Your task to perform on an android device: open the mobile data screen to see how much data has been used Image 0: 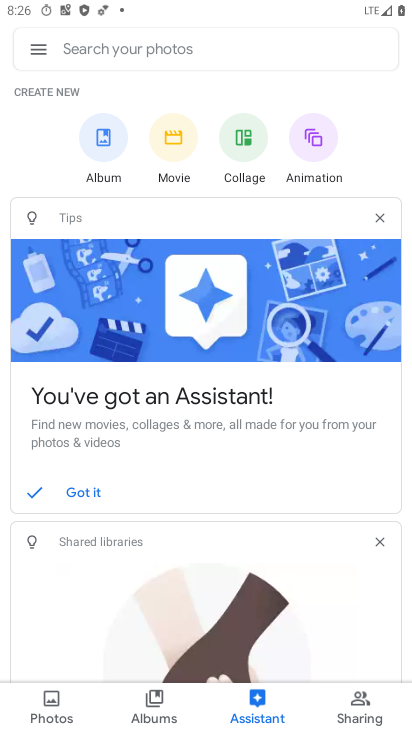
Step 0: press home button
Your task to perform on an android device: open the mobile data screen to see how much data has been used Image 1: 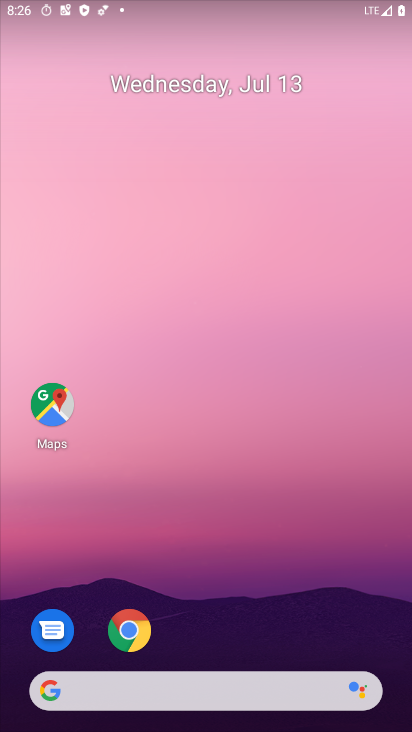
Step 1: drag from (329, 593) to (353, 71)
Your task to perform on an android device: open the mobile data screen to see how much data has been used Image 2: 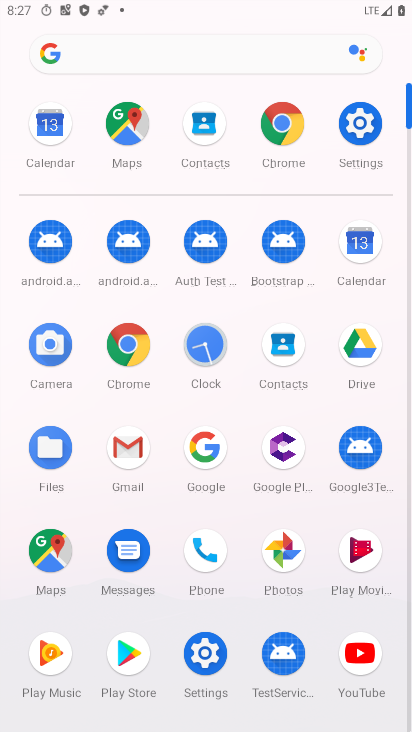
Step 2: click (362, 123)
Your task to perform on an android device: open the mobile data screen to see how much data has been used Image 3: 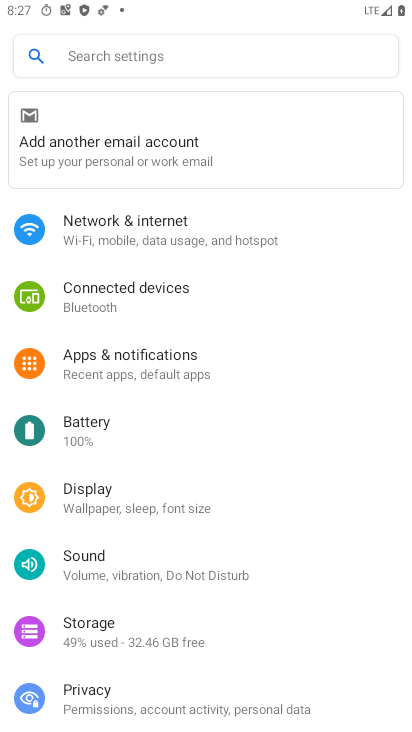
Step 3: drag from (338, 433) to (348, 288)
Your task to perform on an android device: open the mobile data screen to see how much data has been used Image 4: 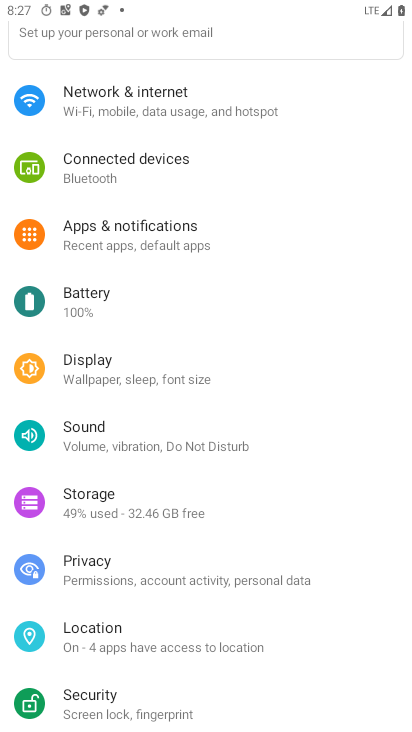
Step 4: drag from (346, 498) to (347, 305)
Your task to perform on an android device: open the mobile data screen to see how much data has been used Image 5: 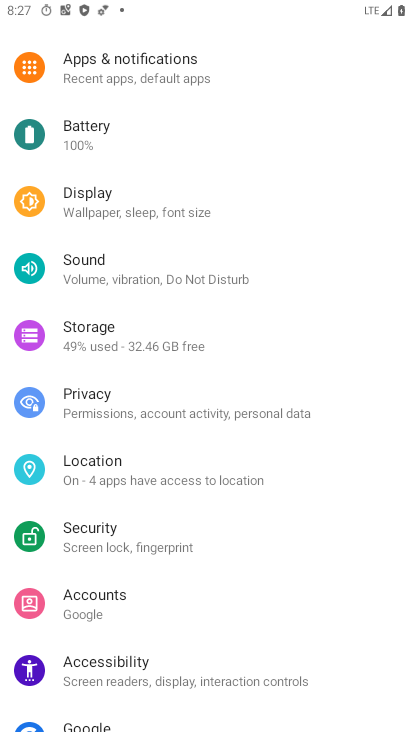
Step 5: drag from (313, 551) to (313, 395)
Your task to perform on an android device: open the mobile data screen to see how much data has been used Image 6: 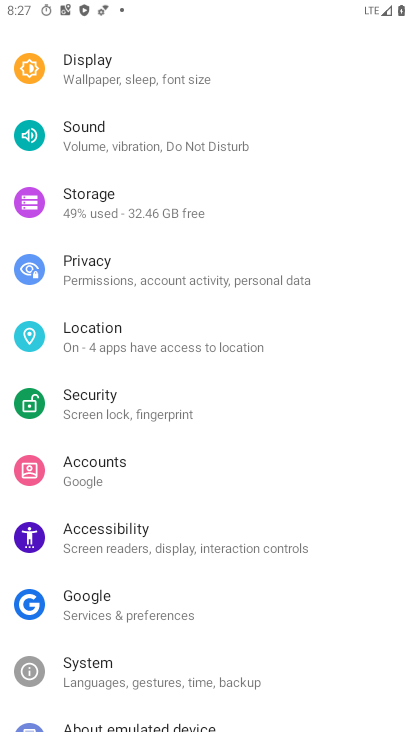
Step 6: drag from (343, 640) to (344, 379)
Your task to perform on an android device: open the mobile data screen to see how much data has been used Image 7: 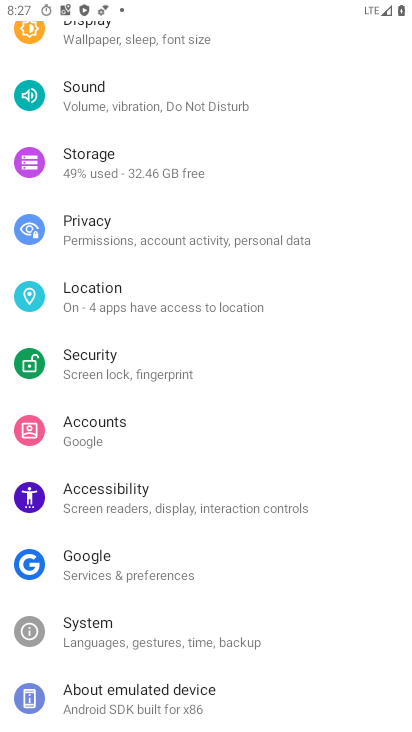
Step 7: drag from (343, 305) to (344, 394)
Your task to perform on an android device: open the mobile data screen to see how much data has been used Image 8: 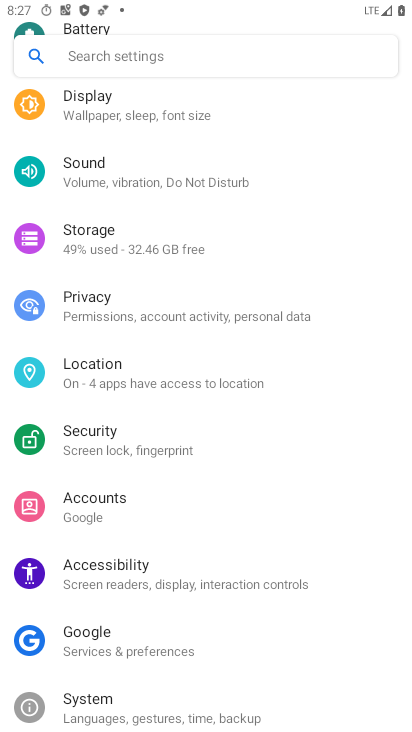
Step 8: drag from (350, 316) to (350, 423)
Your task to perform on an android device: open the mobile data screen to see how much data has been used Image 9: 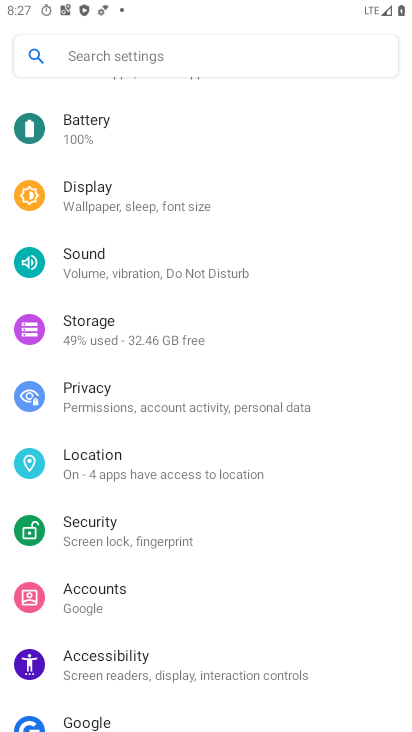
Step 9: drag from (353, 232) to (360, 374)
Your task to perform on an android device: open the mobile data screen to see how much data has been used Image 10: 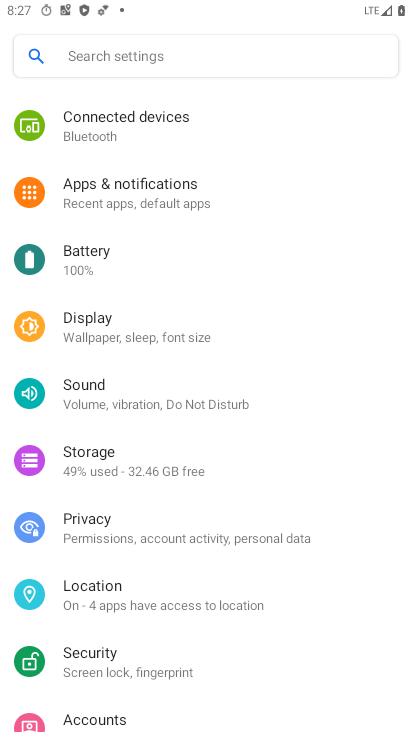
Step 10: drag from (373, 239) to (367, 358)
Your task to perform on an android device: open the mobile data screen to see how much data has been used Image 11: 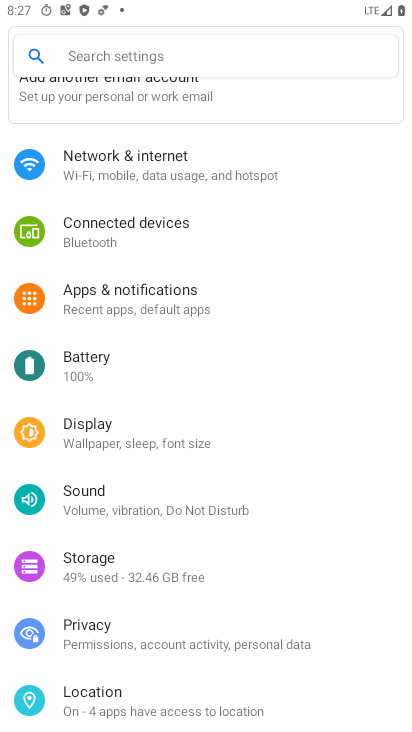
Step 11: drag from (349, 245) to (346, 407)
Your task to perform on an android device: open the mobile data screen to see how much data has been used Image 12: 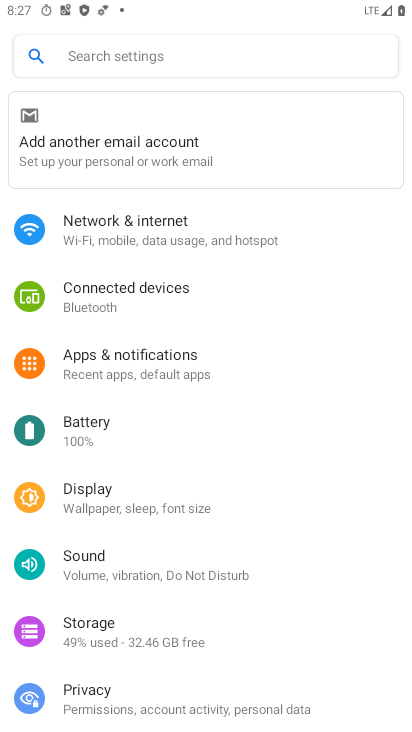
Step 12: click (243, 243)
Your task to perform on an android device: open the mobile data screen to see how much data has been used Image 13: 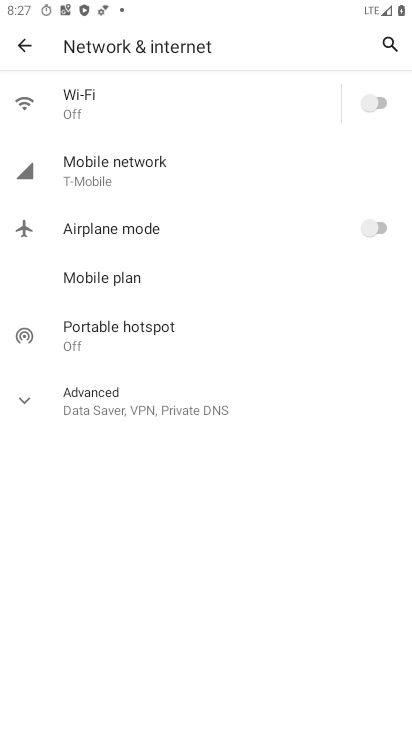
Step 13: click (133, 174)
Your task to perform on an android device: open the mobile data screen to see how much data has been used Image 14: 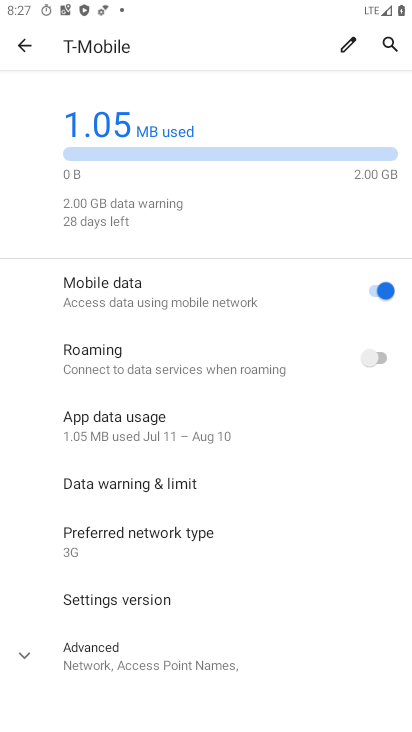
Step 14: click (159, 430)
Your task to perform on an android device: open the mobile data screen to see how much data has been used Image 15: 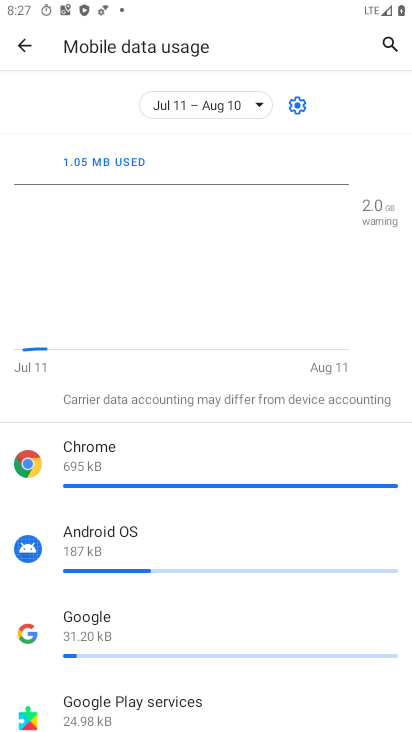
Step 15: task complete